Your task to perform on an android device: check out phone information Image 0: 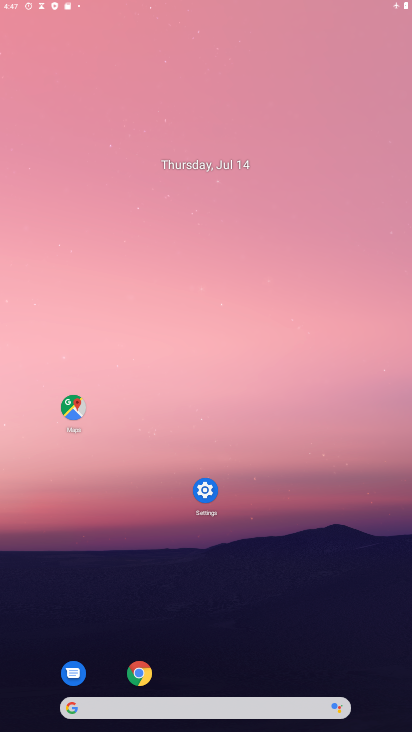
Step 0: drag from (221, 453) to (221, 219)
Your task to perform on an android device: check out phone information Image 1: 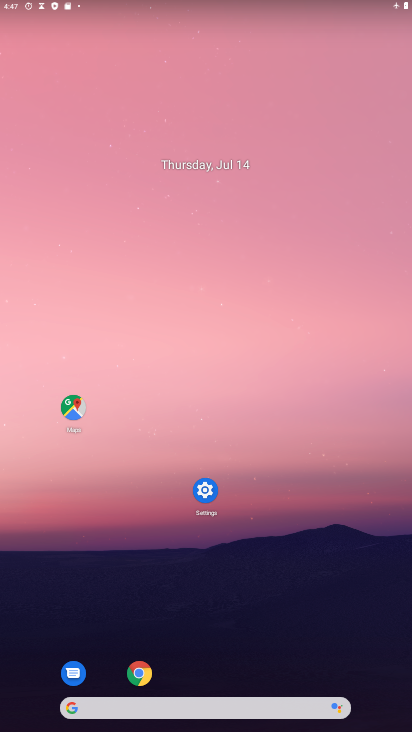
Step 1: drag from (219, 682) to (210, 232)
Your task to perform on an android device: check out phone information Image 2: 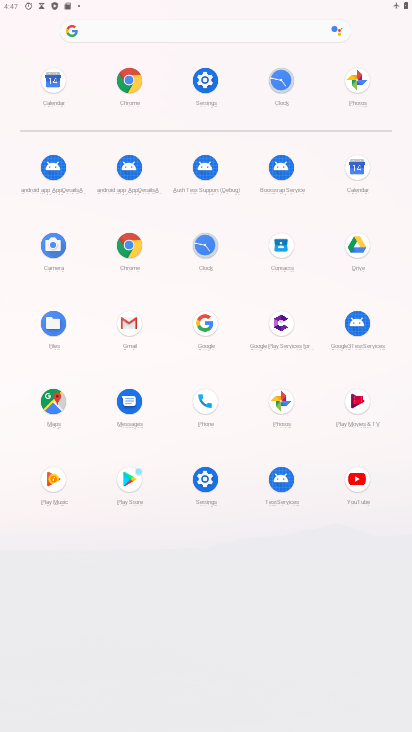
Step 2: click (200, 488)
Your task to perform on an android device: check out phone information Image 3: 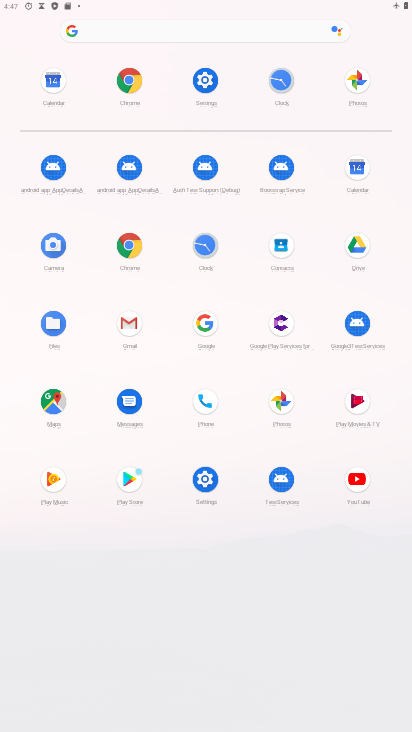
Step 3: click (200, 488)
Your task to perform on an android device: check out phone information Image 4: 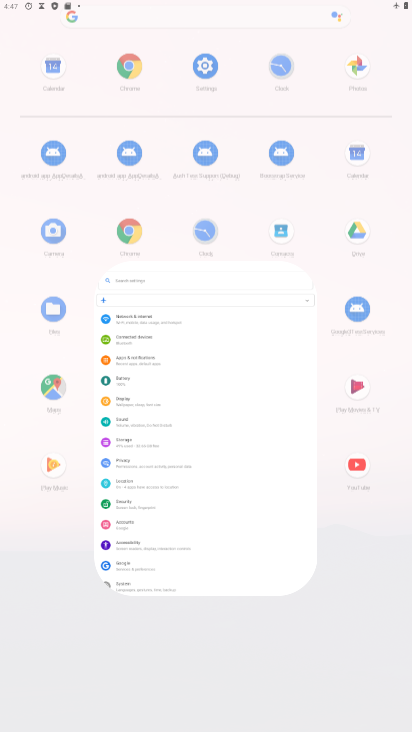
Step 4: click (204, 489)
Your task to perform on an android device: check out phone information Image 5: 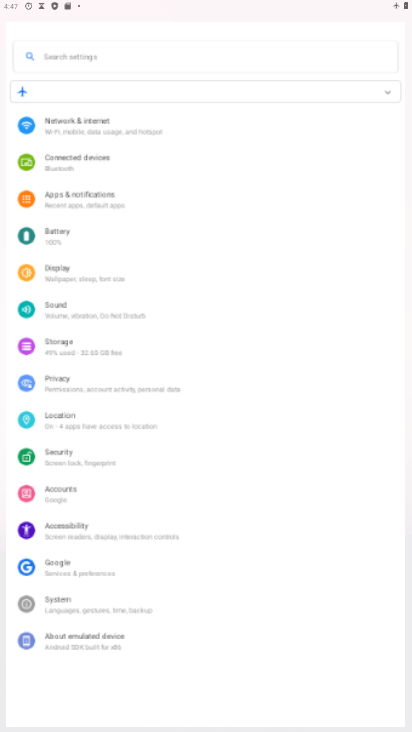
Step 5: click (204, 489)
Your task to perform on an android device: check out phone information Image 6: 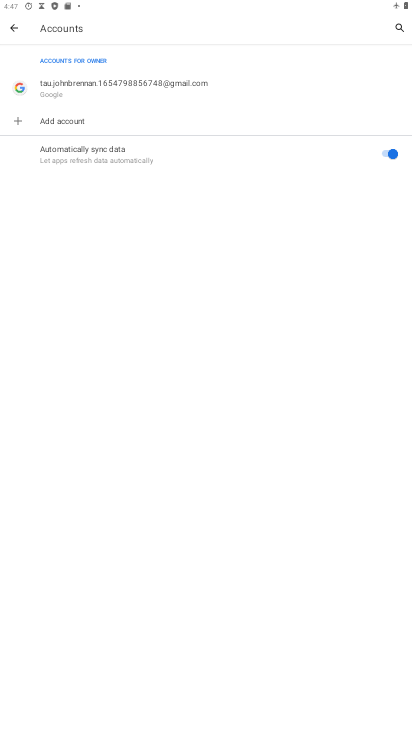
Step 6: click (19, 34)
Your task to perform on an android device: check out phone information Image 7: 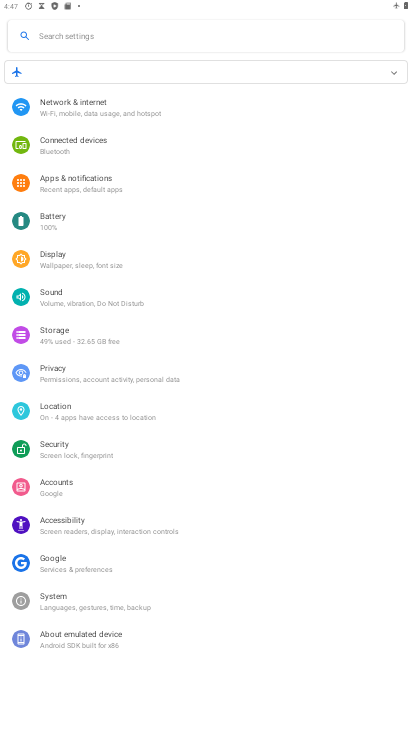
Step 7: click (63, 405)
Your task to perform on an android device: check out phone information Image 8: 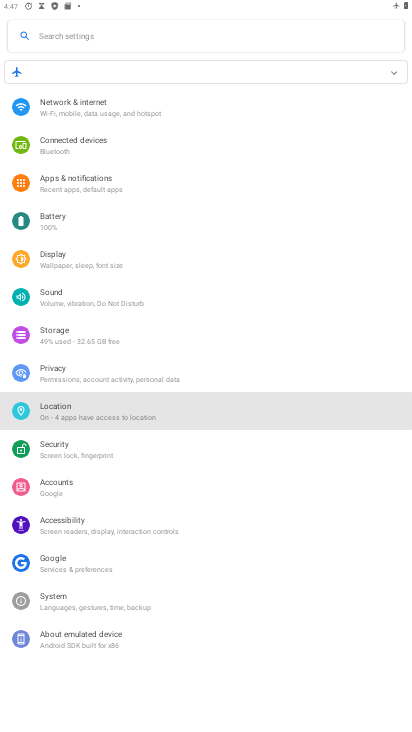
Step 8: click (63, 405)
Your task to perform on an android device: check out phone information Image 9: 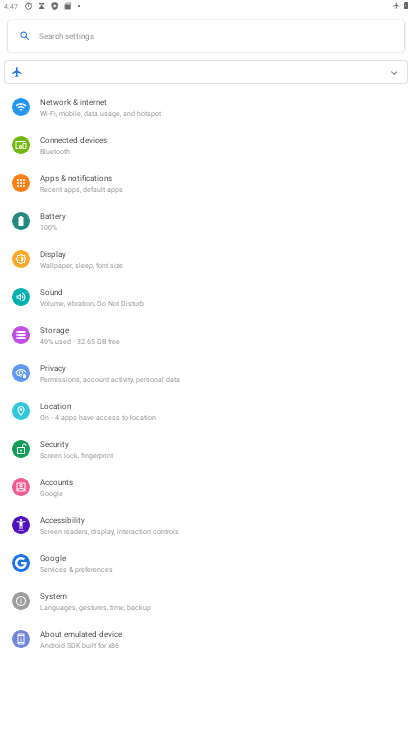
Step 9: click (64, 405)
Your task to perform on an android device: check out phone information Image 10: 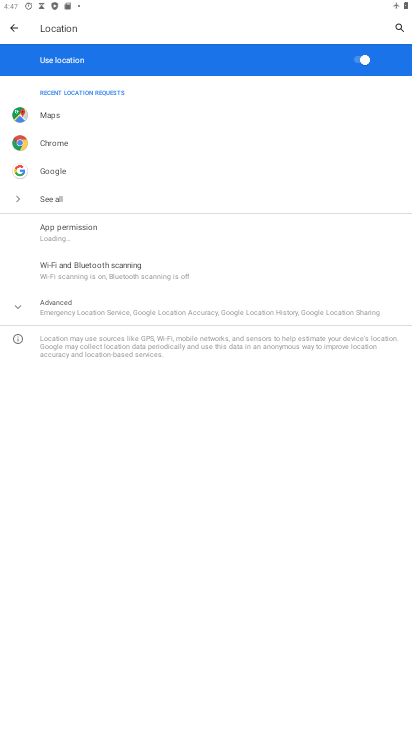
Step 10: click (70, 407)
Your task to perform on an android device: check out phone information Image 11: 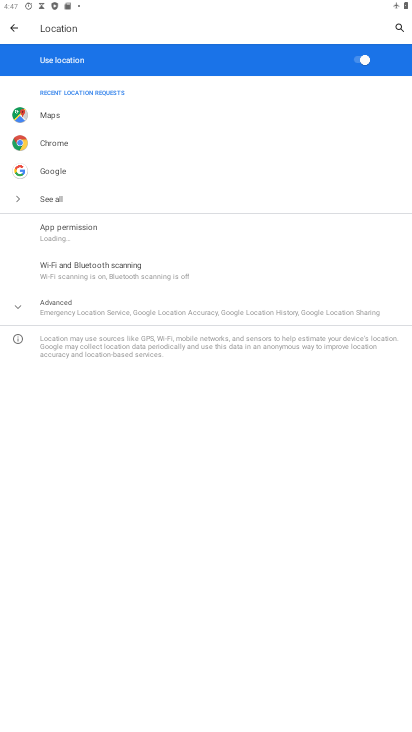
Step 11: click (70, 407)
Your task to perform on an android device: check out phone information Image 12: 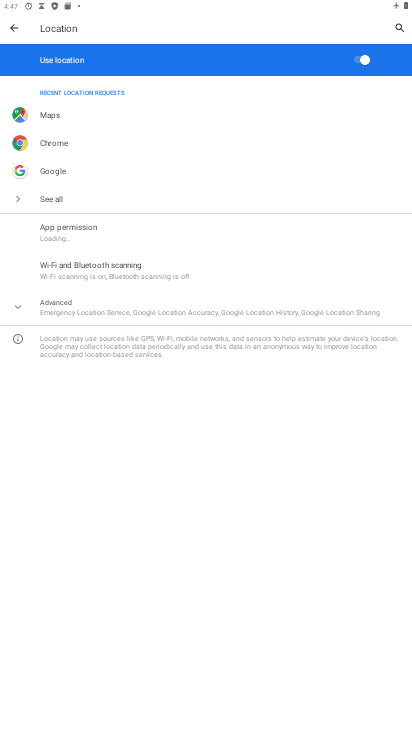
Step 12: click (70, 407)
Your task to perform on an android device: check out phone information Image 13: 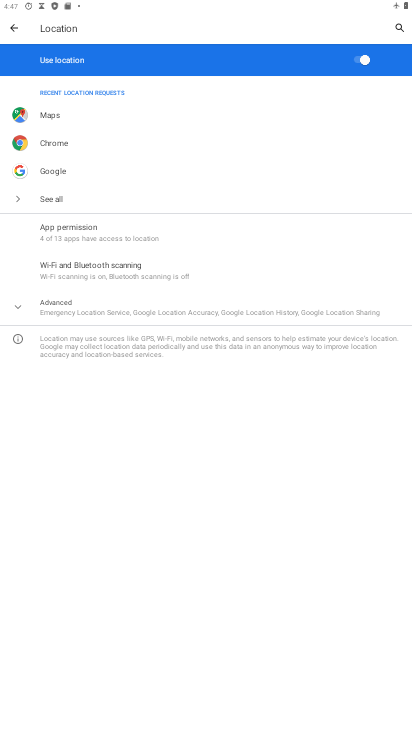
Step 13: click (70, 407)
Your task to perform on an android device: check out phone information Image 14: 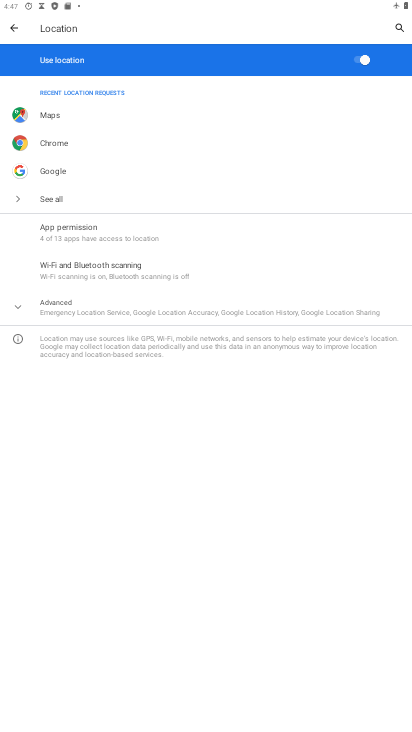
Step 14: click (70, 407)
Your task to perform on an android device: check out phone information Image 15: 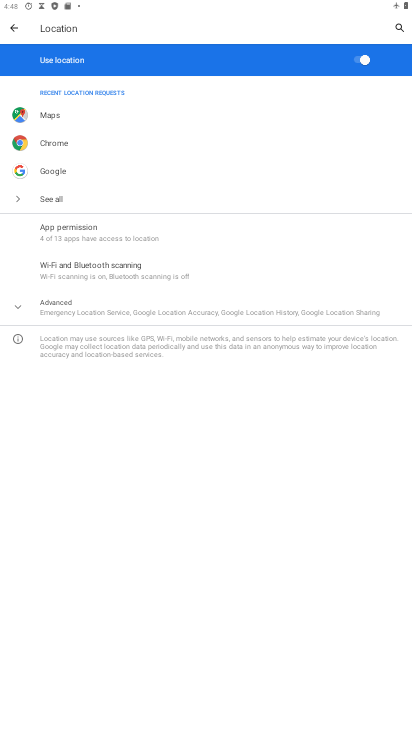
Step 15: click (75, 226)
Your task to perform on an android device: check out phone information Image 16: 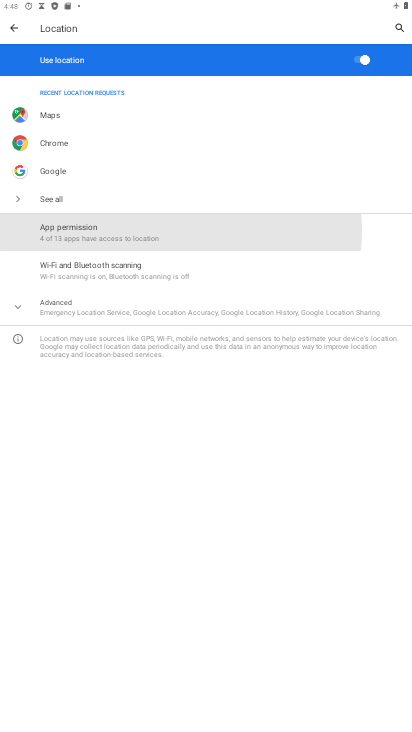
Step 16: click (76, 227)
Your task to perform on an android device: check out phone information Image 17: 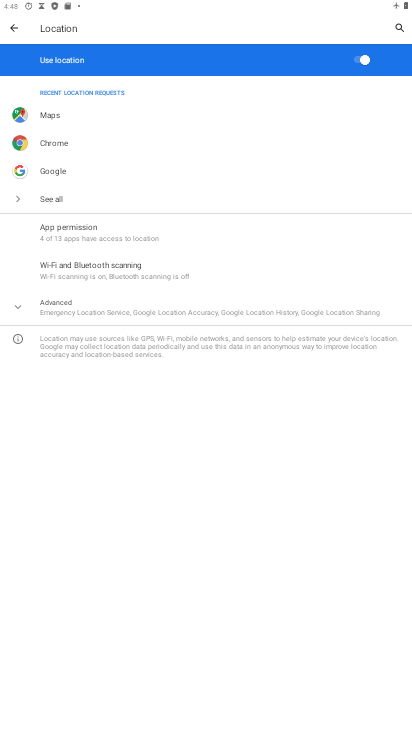
Step 17: click (76, 227)
Your task to perform on an android device: check out phone information Image 18: 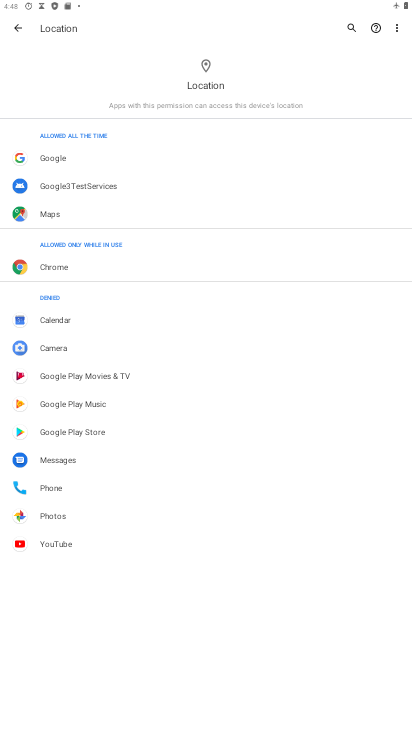
Step 18: click (20, 23)
Your task to perform on an android device: check out phone information Image 19: 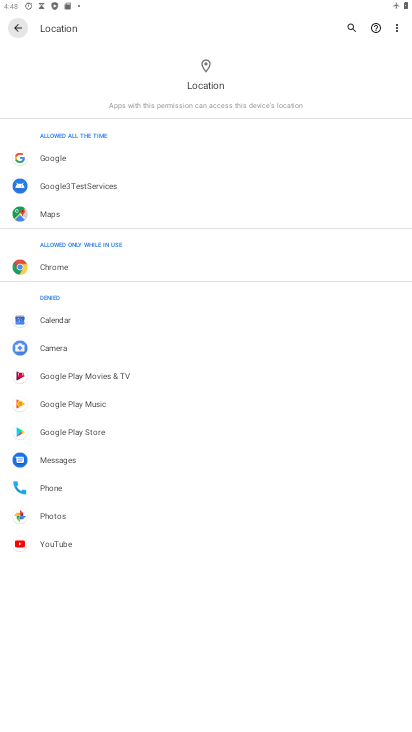
Step 19: click (24, 33)
Your task to perform on an android device: check out phone information Image 20: 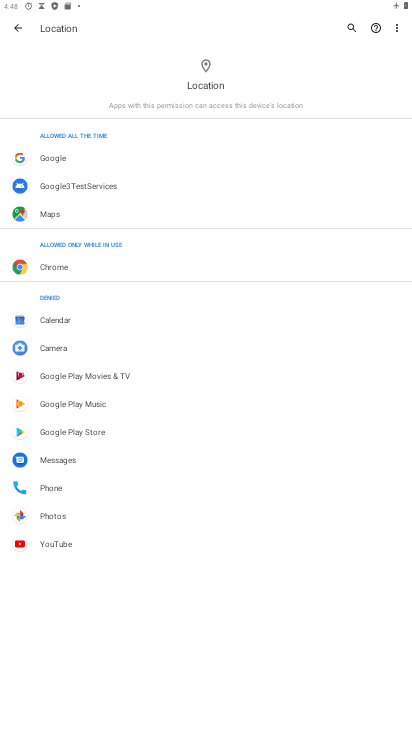
Step 20: click (25, 33)
Your task to perform on an android device: check out phone information Image 21: 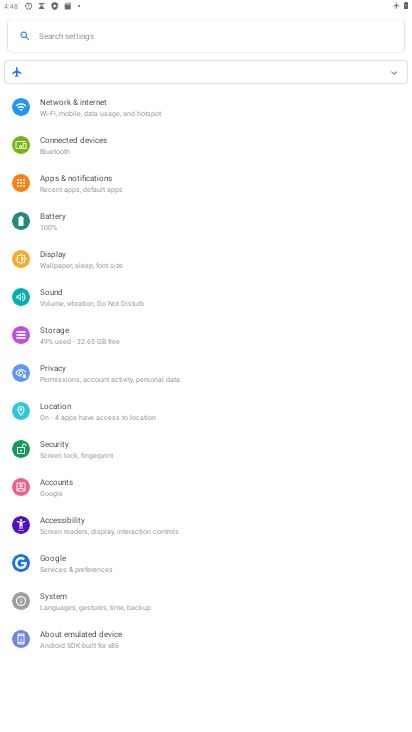
Step 21: click (76, 634)
Your task to perform on an android device: check out phone information Image 22: 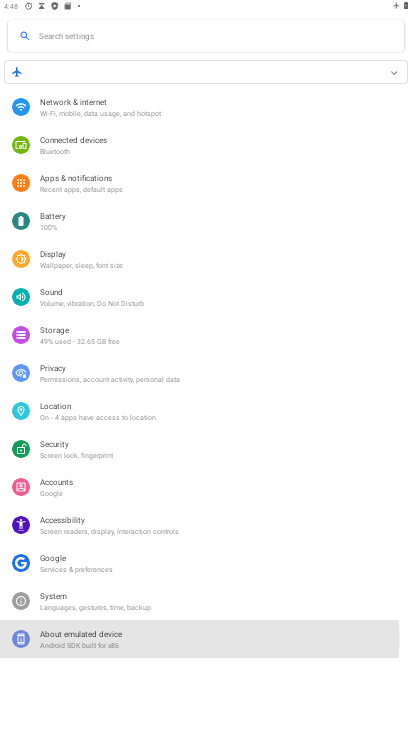
Step 22: click (75, 634)
Your task to perform on an android device: check out phone information Image 23: 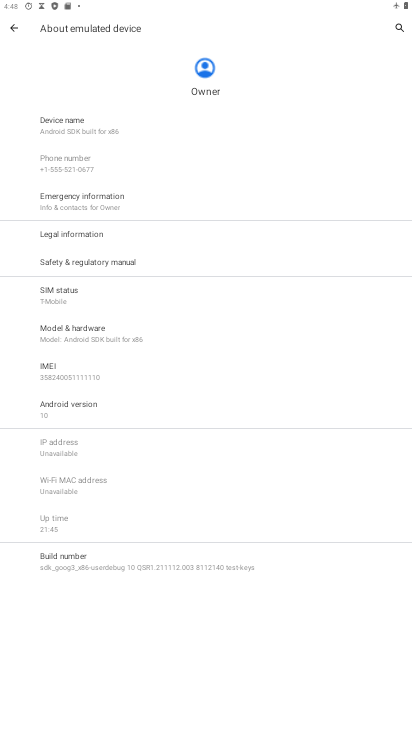
Step 23: task complete